Your task to perform on an android device: turn on the 24-hour format for clock Image 0: 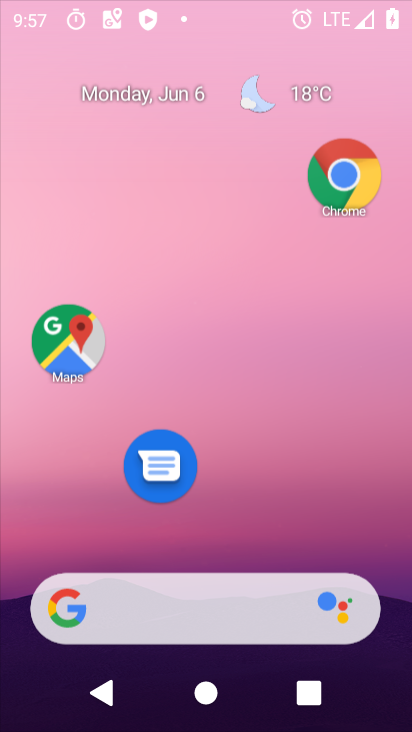
Step 0: drag from (254, 143) to (254, 103)
Your task to perform on an android device: turn on the 24-hour format for clock Image 1: 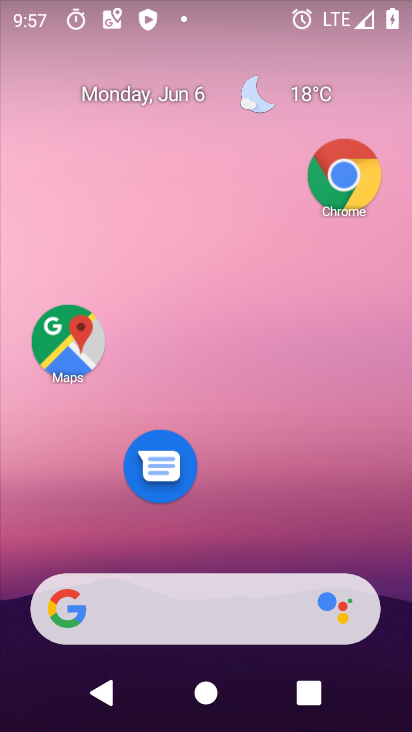
Step 1: drag from (210, 547) to (164, 3)
Your task to perform on an android device: turn on the 24-hour format for clock Image 2: 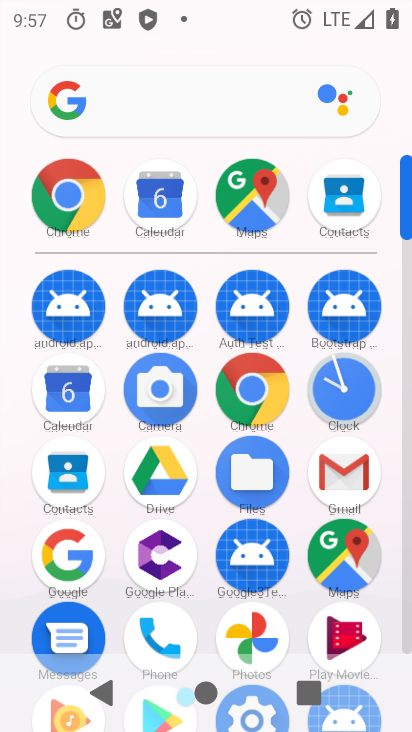
Step 2: drag from (201, 607) to (247, 185)
Your task to perform on an android device: turn on the 24-hour format for clock Image 3: 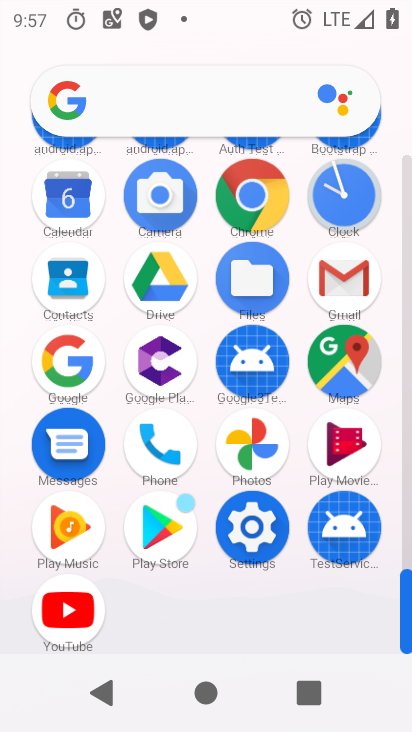
Step 3: click (336, 207)
Your task to perform on an android device: turn on the 24-hour format for clock Image 4: 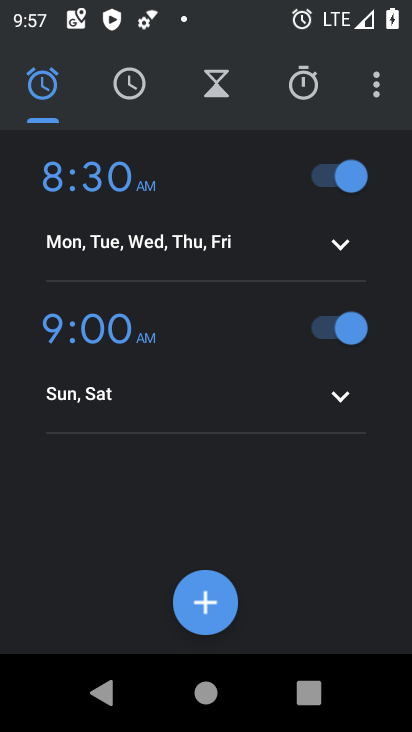
Step 4: click (376, 84)
Your task to perform on an android device: turn on the 24-hour format for clock Image 5: 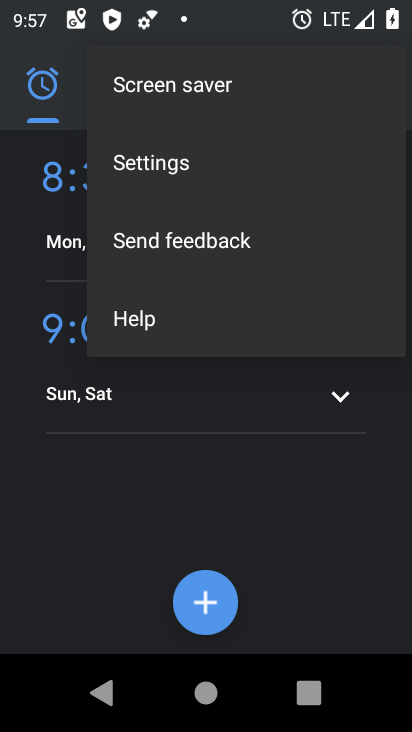
Step 5: click (222, 139)
Your task to perform on an android device: turn on the 24-hour format for clock Image 6: 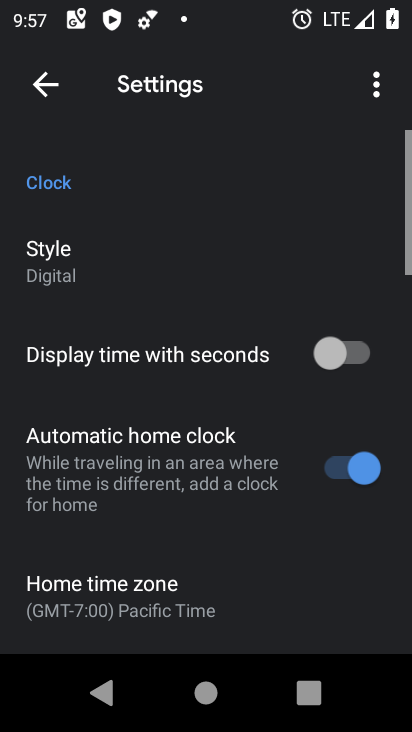
Step 6: drag from (167, 521) to (301, 88)
Your task to perform on an android device: turn on the 24-hour format for clock Image 7: 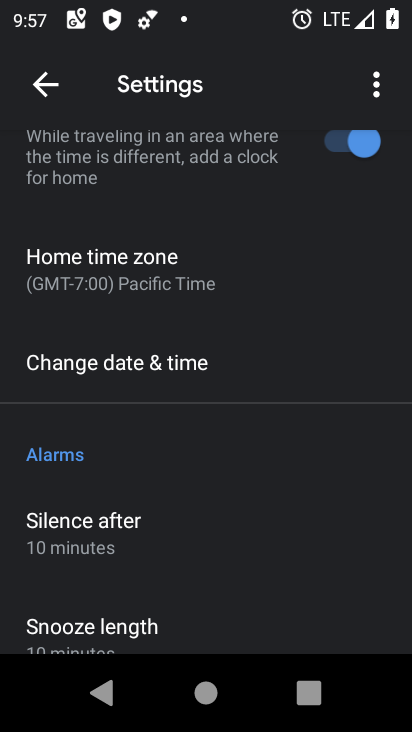
Step 7: click (182, 384)
Your task to perform on an android device: turn on the 24-hour format for clock Image 8: 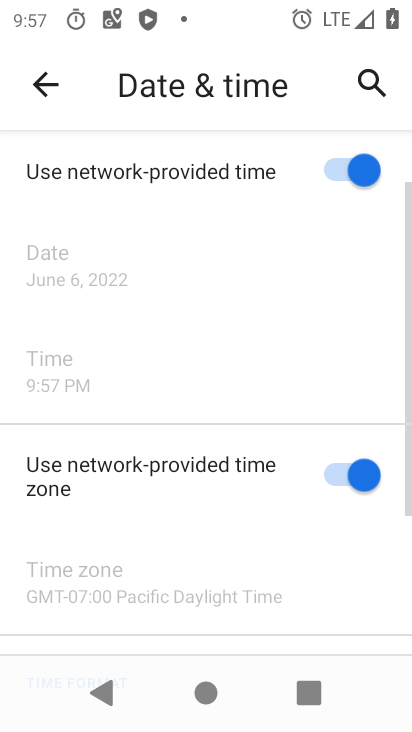
Step 8: drag from (257, 556) to (374, 108)
Your task to perform on an android device: turn on the 24-hour format for clock Image 9: 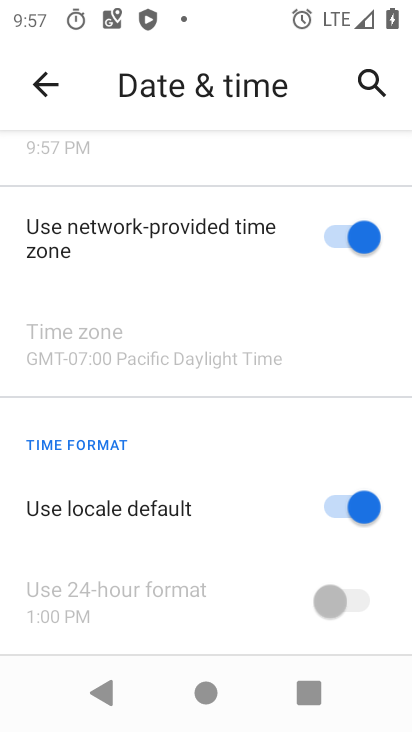
Step 9: click (359, 512)
Your task to perform on an android device: turn on the 24-hour format for clock Image 10: 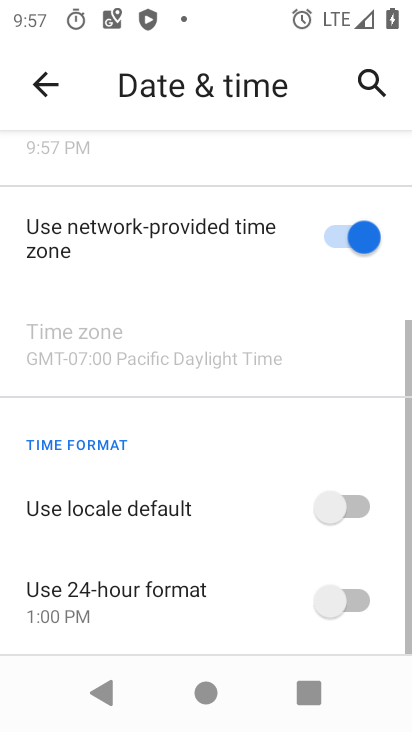
Step 10: click (359, 615)
Your task to perform on an android device: turn on the 24-hour format for clock Image 11: 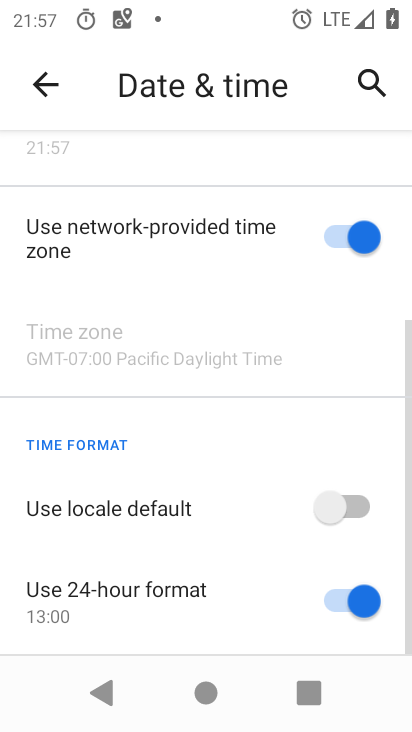
Step 11: task complete